Your task to perform on an android device: set the timer Image 0: 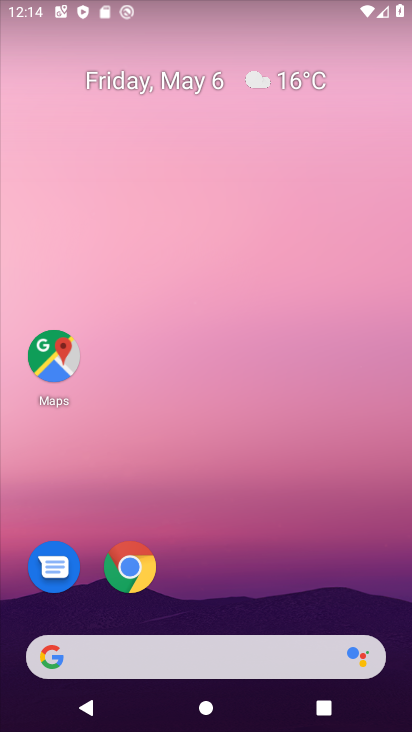
Step 0: drag from (299, 222) to (282, 22)
Your task to perform on an android device: set the timer Image 1: 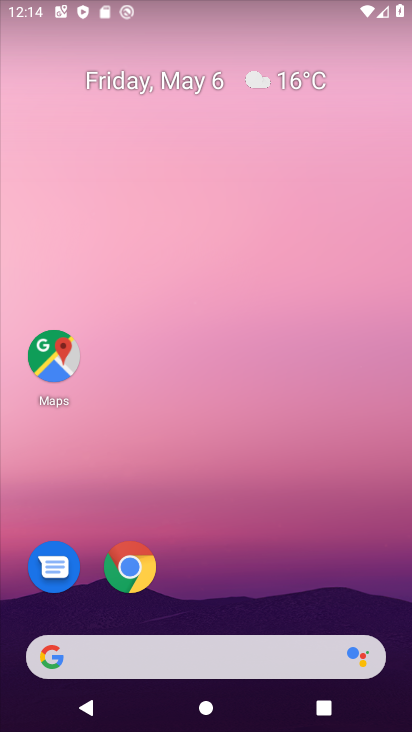
Step 1: drag from (284, 555) to (322, 99)
Your task to perform on an android device: set the timer Image 2: 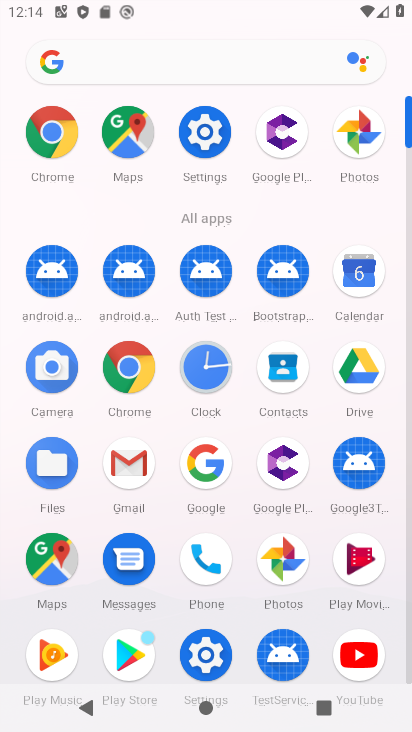
Step 2: click (206, 364)
Your task to perform on an android device: set the timer Image 3: 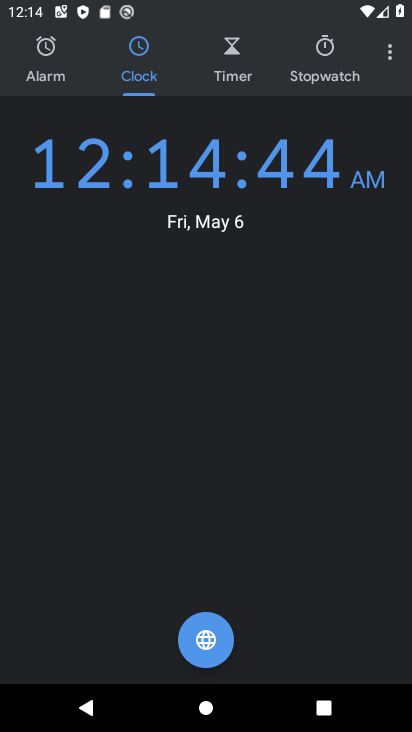
Step 3: click (224, 71)
Your task to perform on an android device: set the timer Image 4: 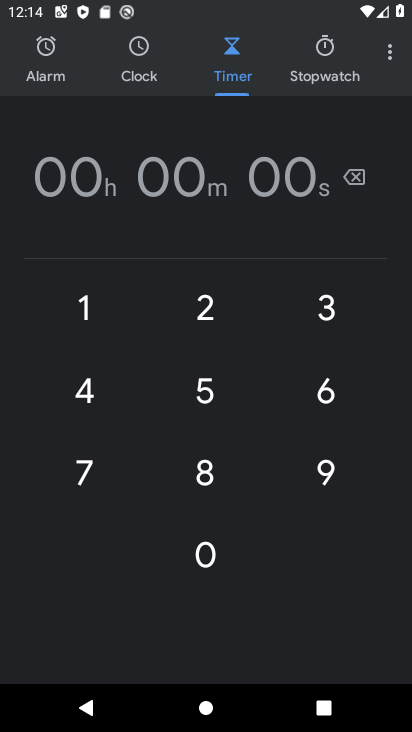
Step 4: click (107, 310)
Your task to perform on an android device: set the timer Image 5: 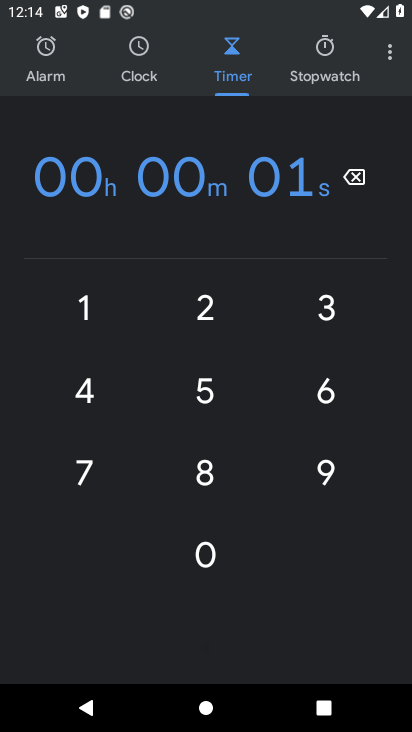
Step 5: click (92, 380)
Your task to perform on an android device: set the timer Image 6: 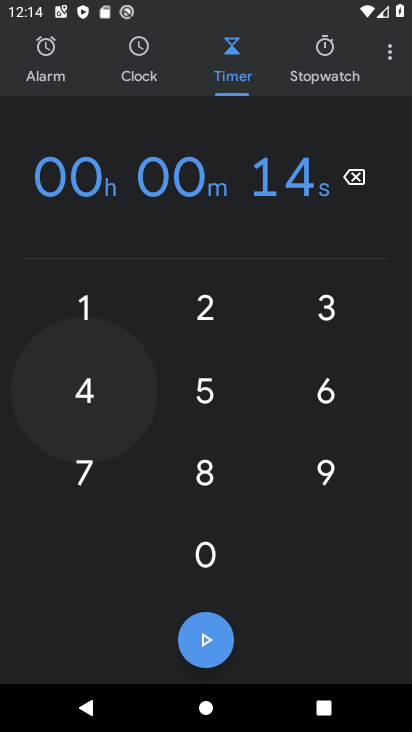
Step 6: click (107, 296)
Your task to perform on an android device: set the timer Image 7: 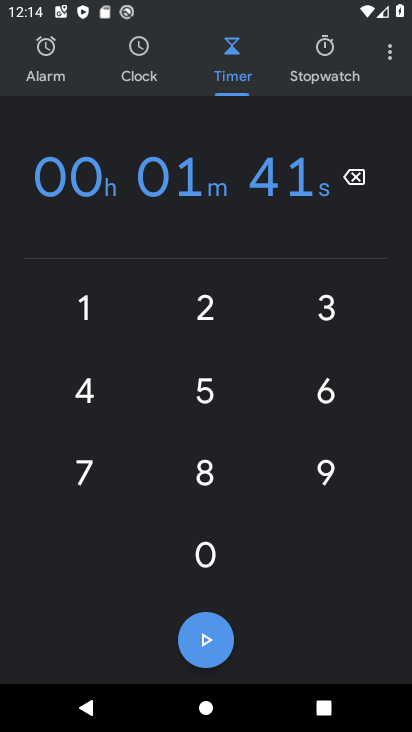
Step 7: click (109, 375)
Your task to perform on an android device: set the timer Image 8: 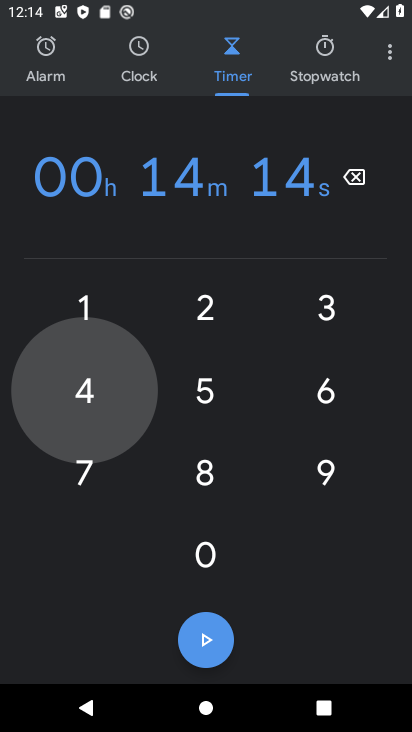
Step 8: click (87, 324)
Your task to perform on an android device: set the timer Image 9: 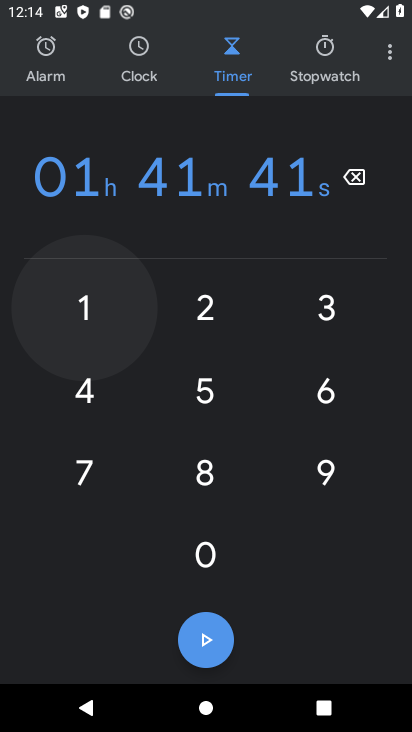
Step 9: click (104, 389)
Your task to perform on an android device: set the timer Image 10: 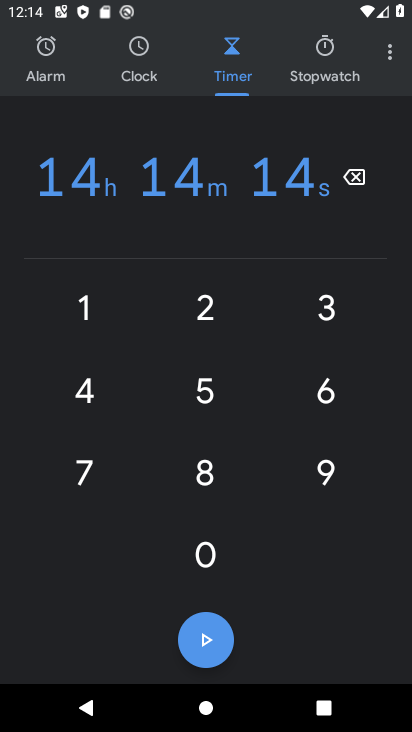
Step 10: click (212, 646)
Your task to perform on an android device: set the timer Image 11: 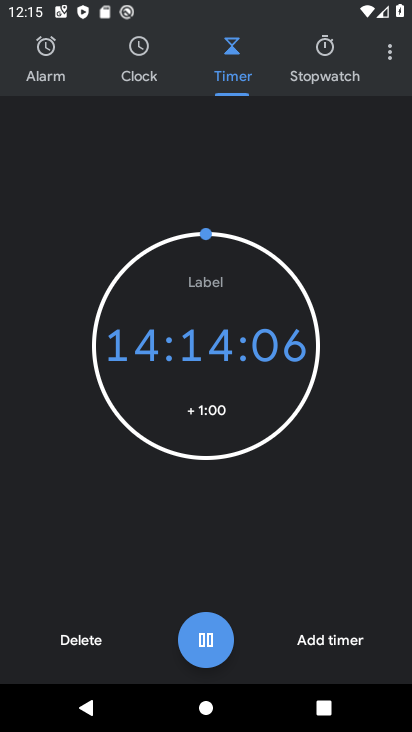
Step 11: task complete